Your task to perform on an android device: turn pop-ups off in chrome Image 0: 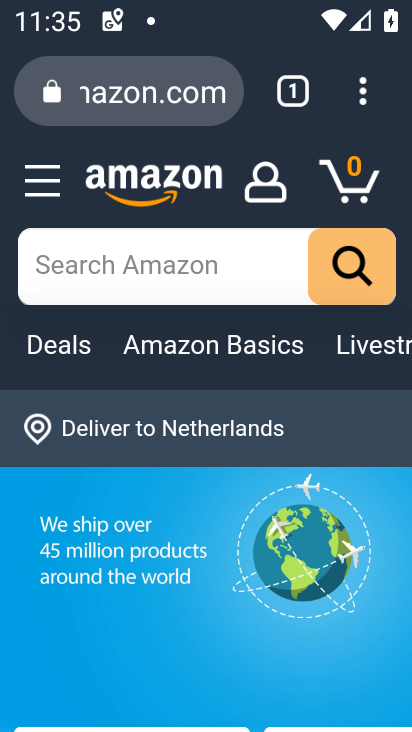
Step 0: press home button
Your task to perform on an android device: turn pop-ups off in chrome Image 1: 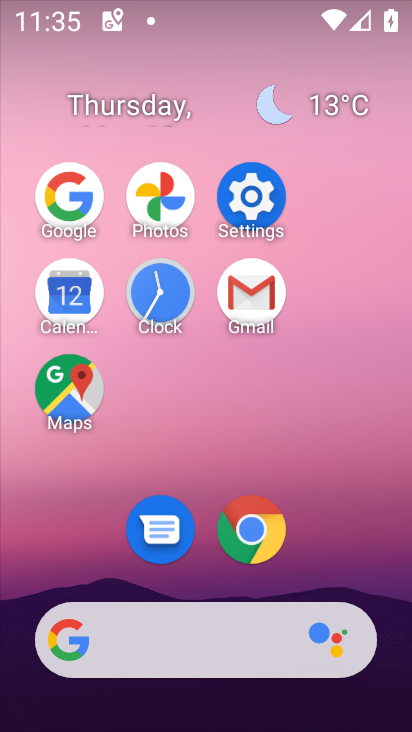
Step 1: click (248, 520)
Your task to perform on an android device: turn pop-ups off in chrome Image 2: 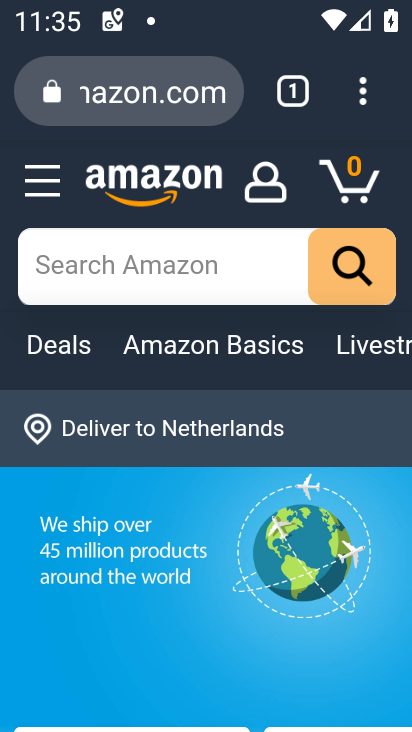
Step 2: click (368, 82)
Your task to perform on an android device: turn pop-ups off in chrome Image 3: 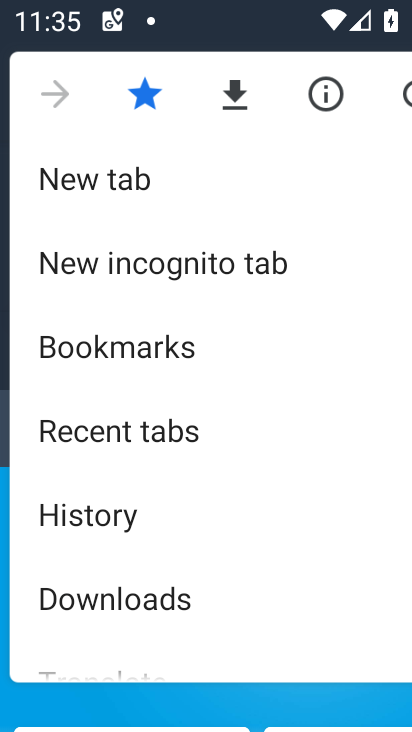
Step 3: drag from (267, 516) to (284, 111)
Your task to perform on an android device: turn pop-ups off in chrome Image 4: 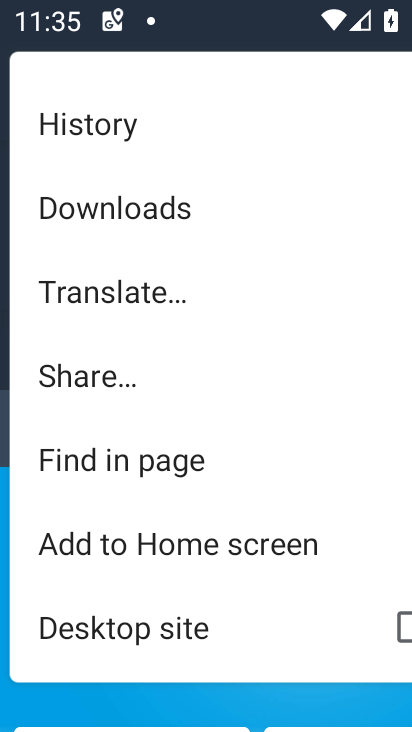
Step 4: drag from (270, 491) to (285, 254)
Your task to perform on an android device: turn pop-ups off in chrome Image 5: 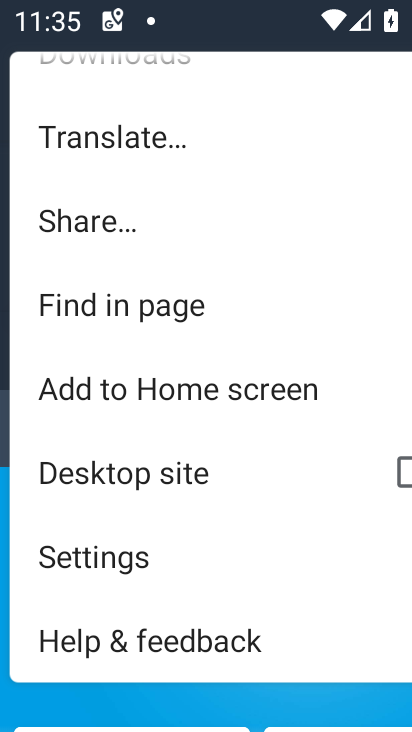
Step 5: click (244, 583)
Your task to perform on an android device: turn pop-ups off in chrome Image 6: 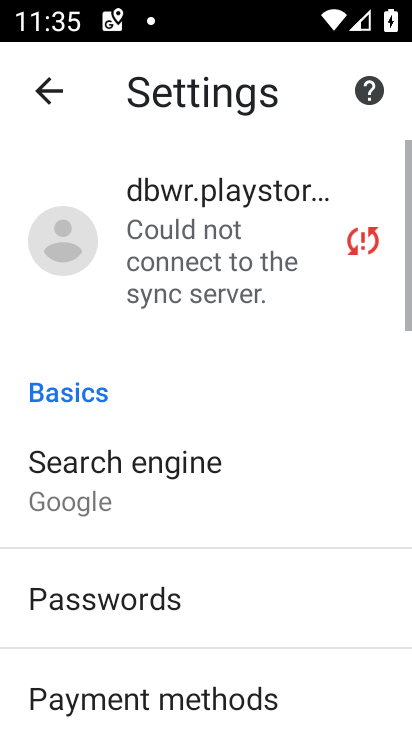
Step 6: drag from (244, 583) to (239, 112)
Your task to perform on an android device: turn pop-ups off in chrome Image 7: 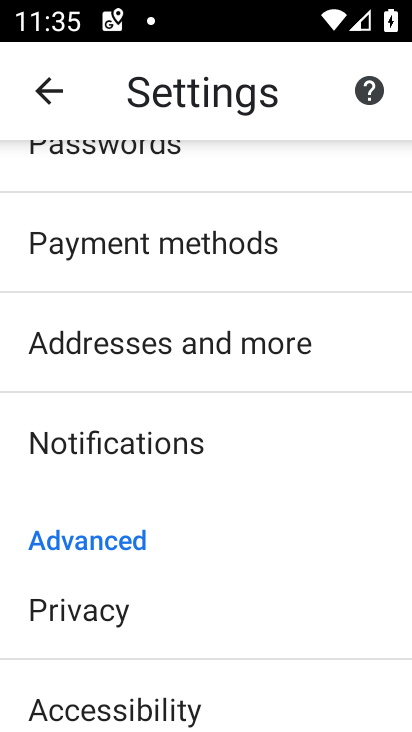
Step 7: drag from (196, 597) to (232, 234)
Your task to perform on an android device: turn pop-ups off in chrome Image 8: 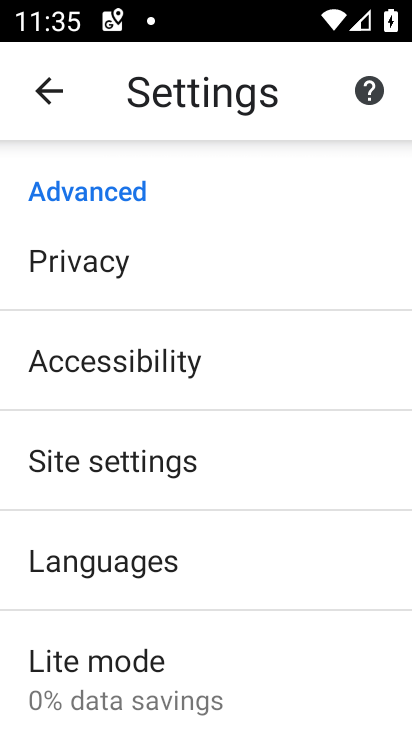
Step 8: click (207, 481)
Your task to perform on an android device: turn pop-ups off in chrome Image 9: 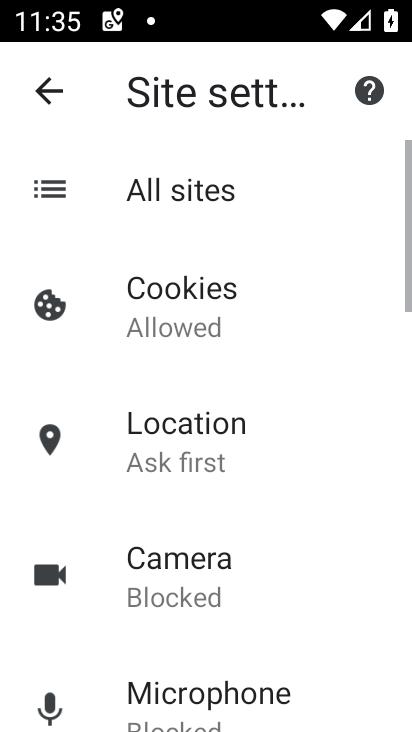
Step 9: drag from (206, 546) to (223, 206)
Your task to perform on an android device: turn pop-ups off in chrome Image 10: 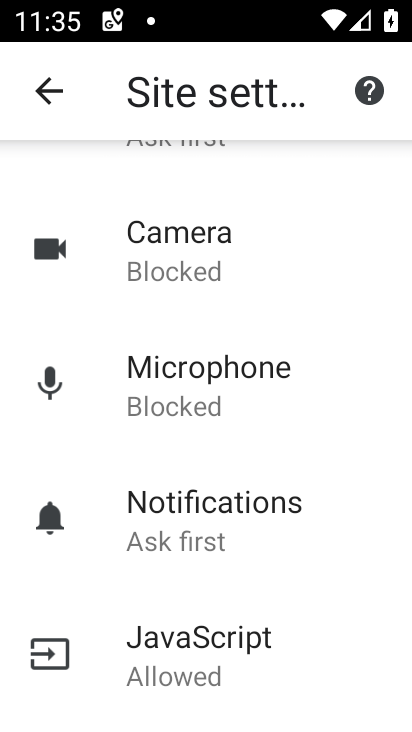
Step 10: drag from (207, 626) to (243, 242)
Your task to perform on an android device: turn pop-ups off in chrome Image 11: 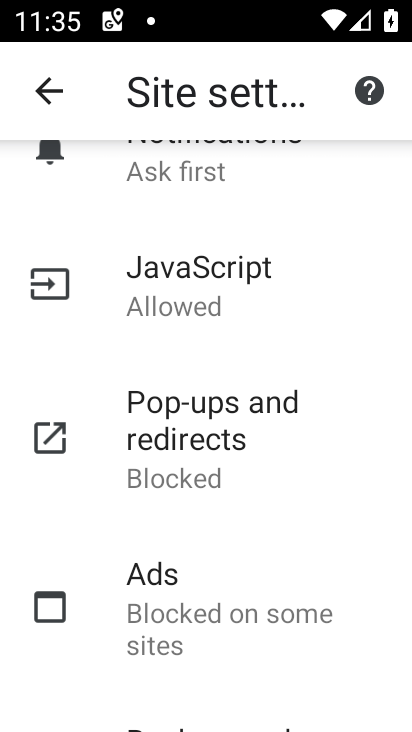
Step 11: click (232, 464)
Your task to perform on an android device: turn pop-ups off in chrome Image 12: 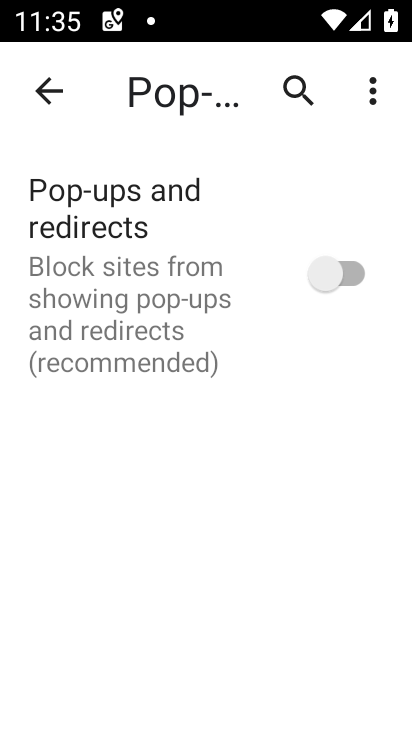
Step 12: task complete